Your task to perform on an android device: change notifications settings Image 0: 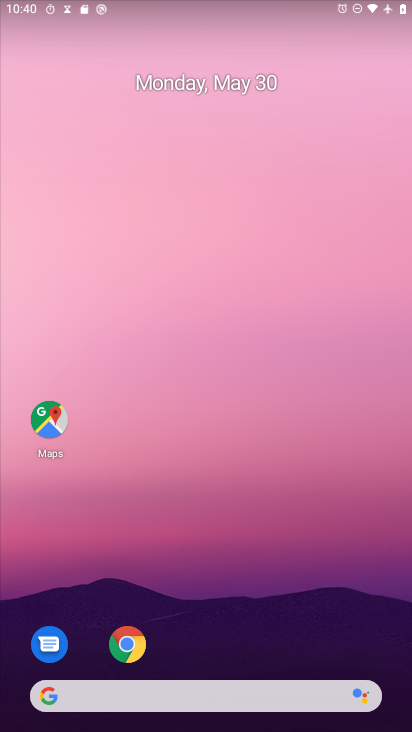
Step 0: drag from (242, 510) to (304, 2)
Your task to perform on an android device: change notifications settings Image 1: 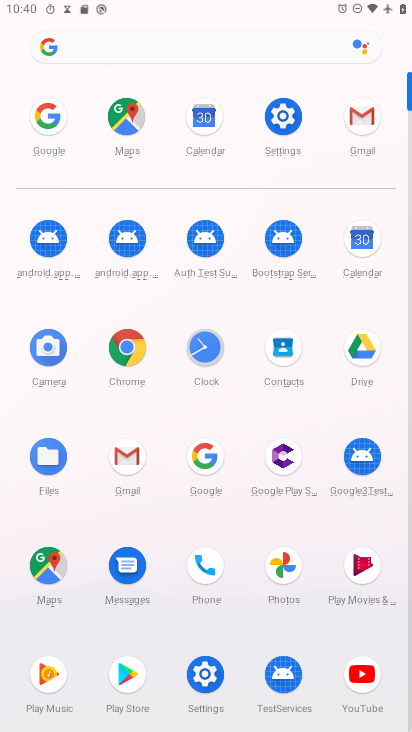
Step 1: click (288, 113)
Your task to perform on an android device: change notifications settings Image 2: 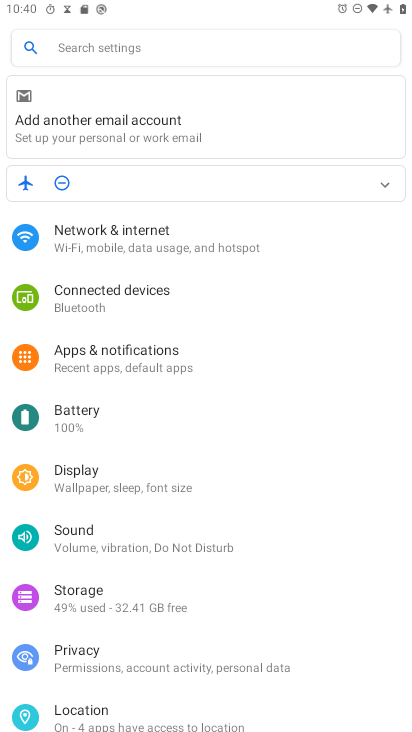
Step 2: click (110, 364)
Your task to perform on an android device: change notifications settings Image 3: 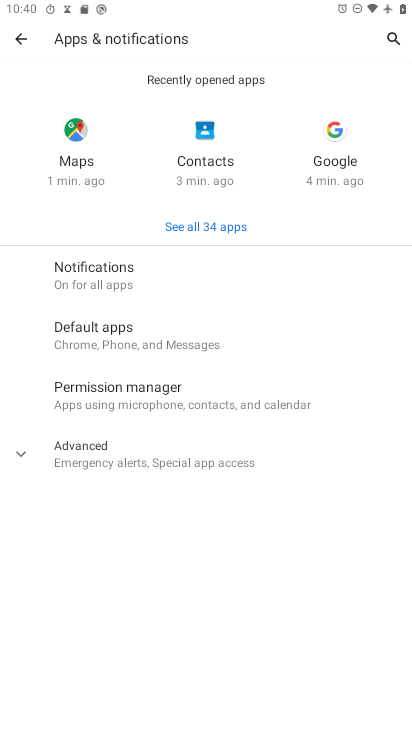
Step 3: click (131, 271)
Your task to perform on an android device: change notifications settings Image 4: 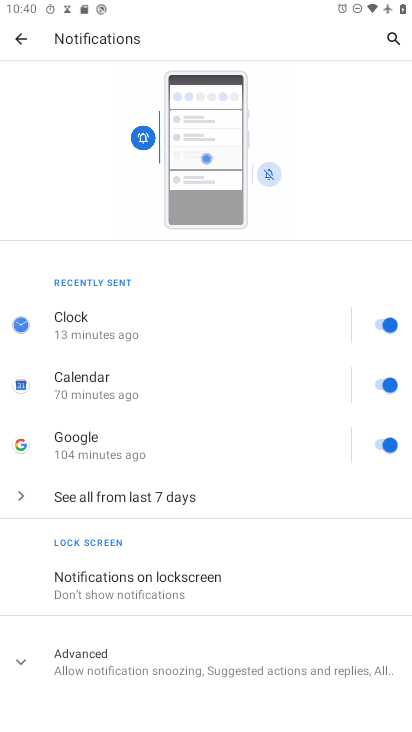
Step 4: click (125, 663)
Your task to perform on an android device: change notifications settings Image 5: 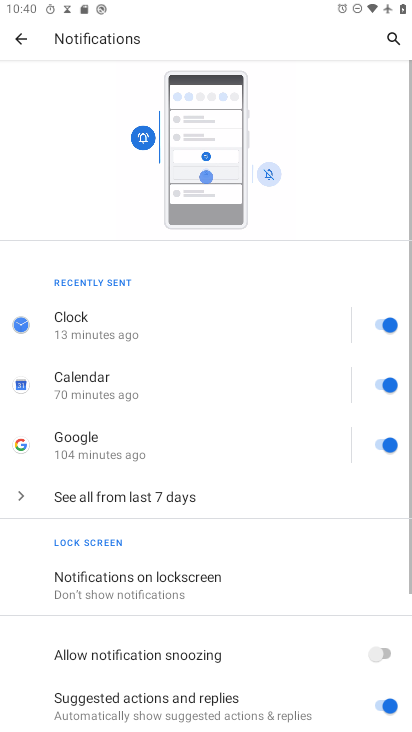
Step 5: drag from (275, 571) to (311, 123)
Your task to perform on an android device: change notifications settings Image 6: 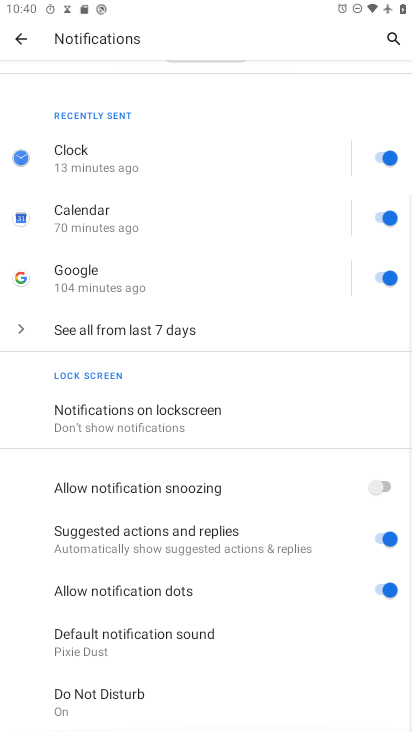
Step 6: click (386, 491)
Your task to perform on an android device: change notifications settings Image 7: 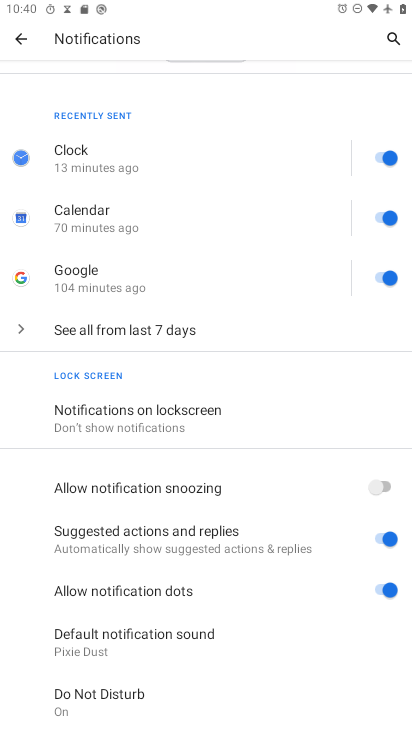
Step 7: click (392, 543)
Your task to perform on an android device: change notifications settings Image 8: 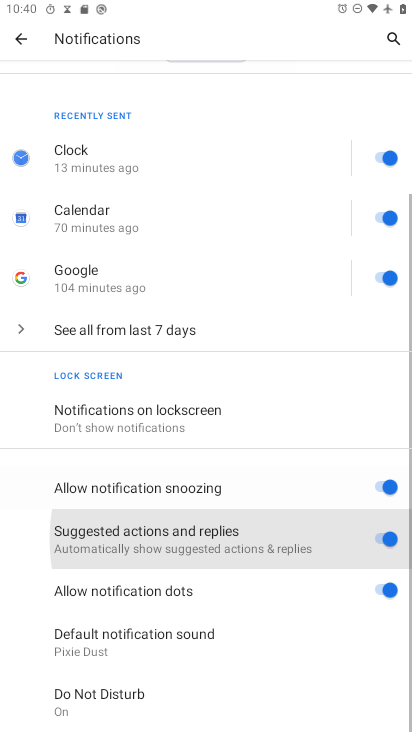
Step 8: click (388, 588)
Your task to perform on an android device: change notifications settings Image 9: 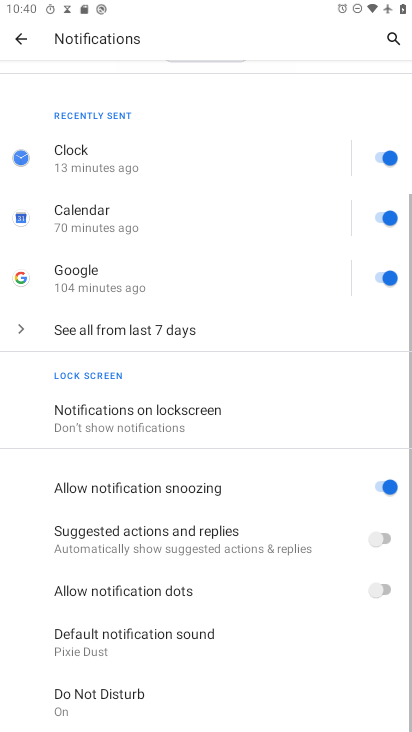
Step 9: task complete